Your task to perform on an android device: Set an alarm for 1pm Image 0: 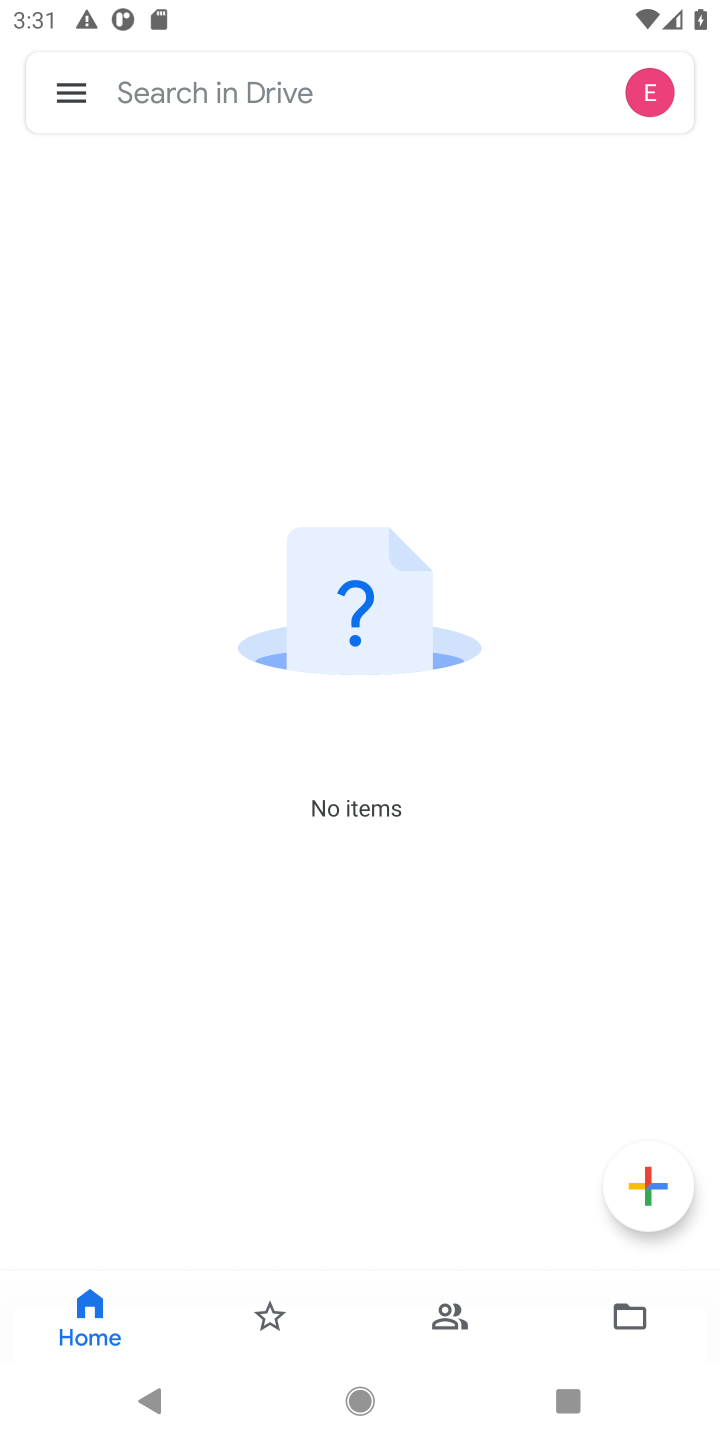
Step 0: press home button
Your task to perform on an android device: Set an alarm for 1pm Image 1: 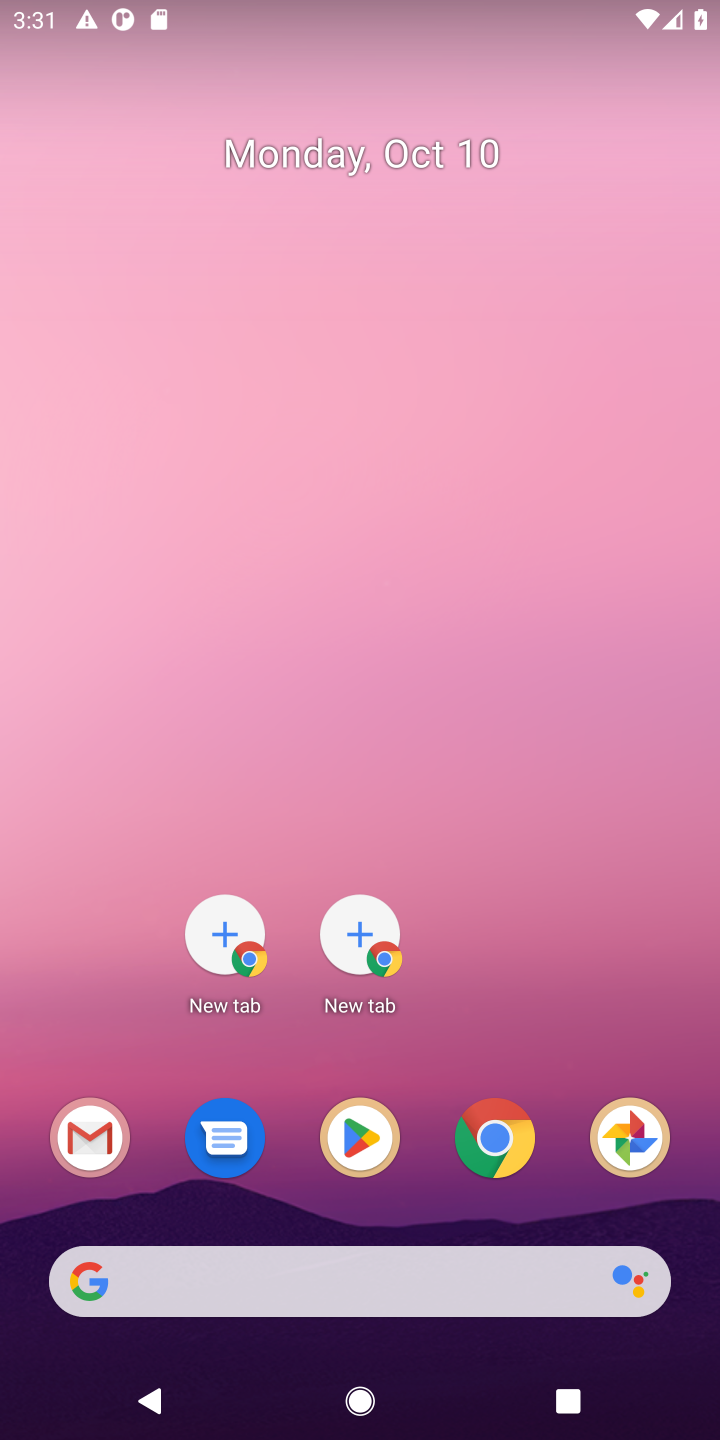
Step 1: drag from (383, 1150) to (439, 331)
Your task to perform on an android device: Set an alarm for 1pm Image 2: 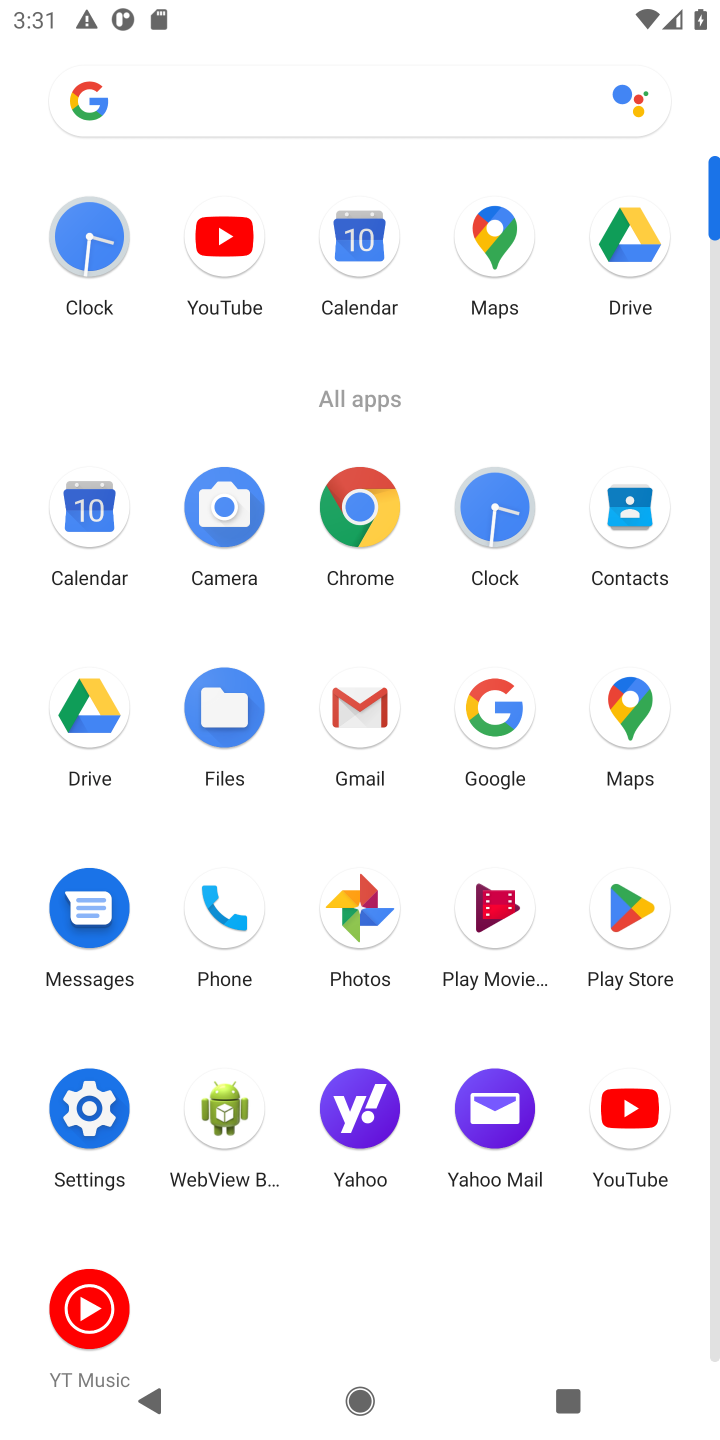
Step 2: click (493, 514)
Your task to perform on an android device: Set an alarm for 1pm Image 3: 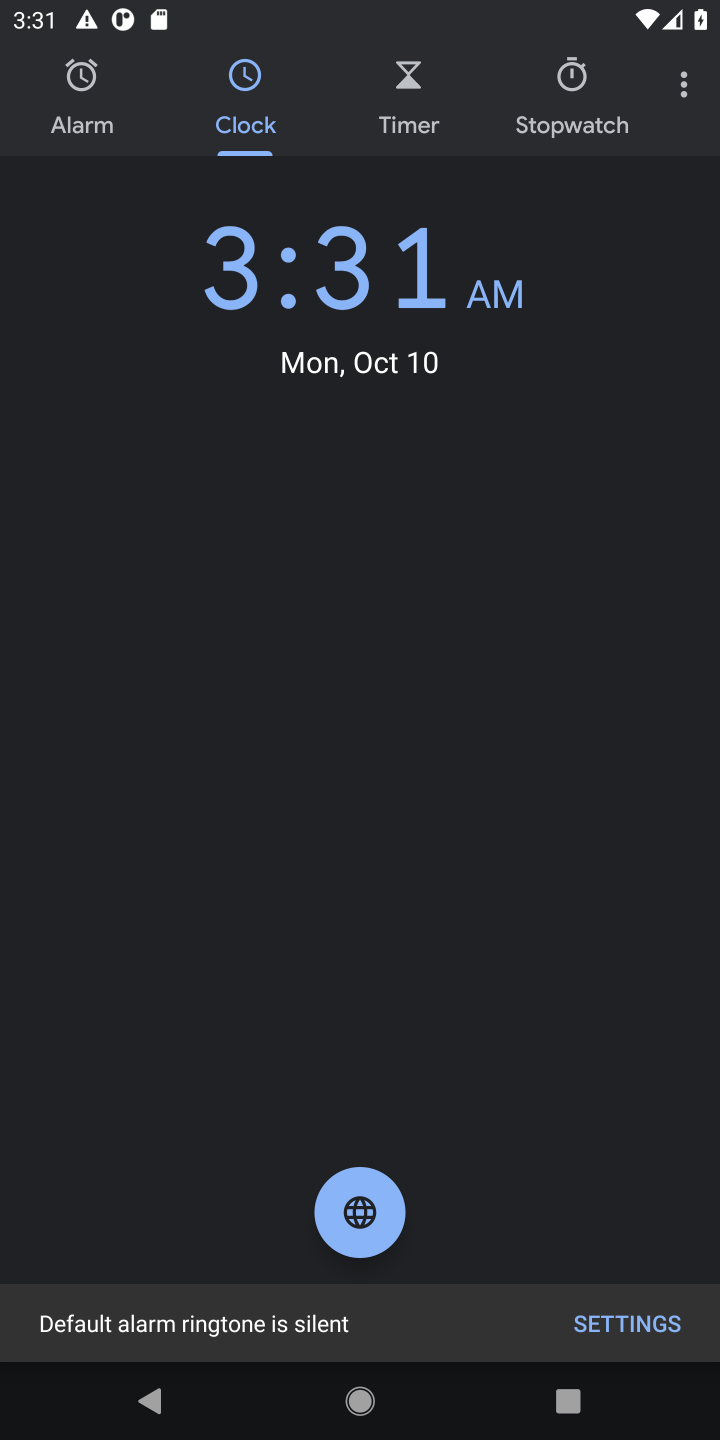
Step 3: click (122, 148)
Your task to perform on an android device: Set an alarm for 1pm Image 4: 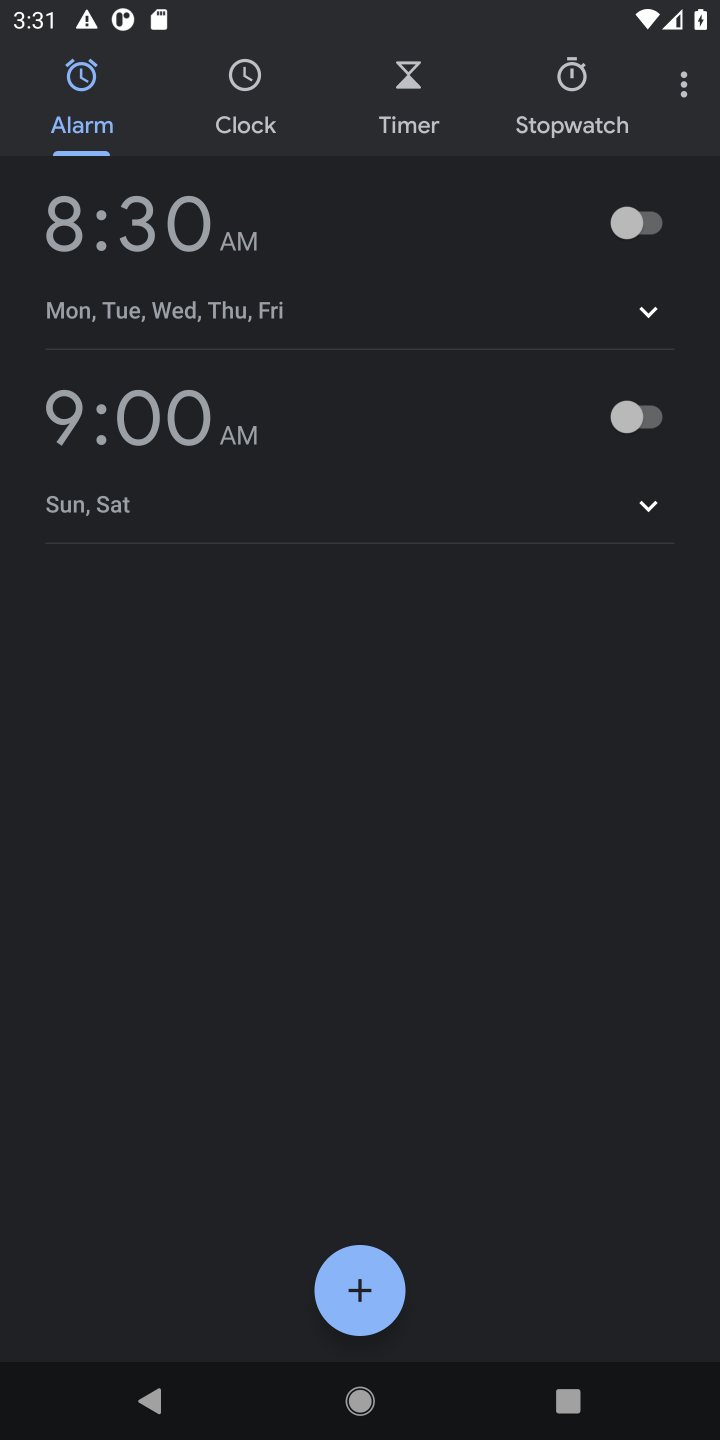
Step 4: click (372, 1300)
Your task to perform on an android device: Set an alarm for 1pm Image 5: 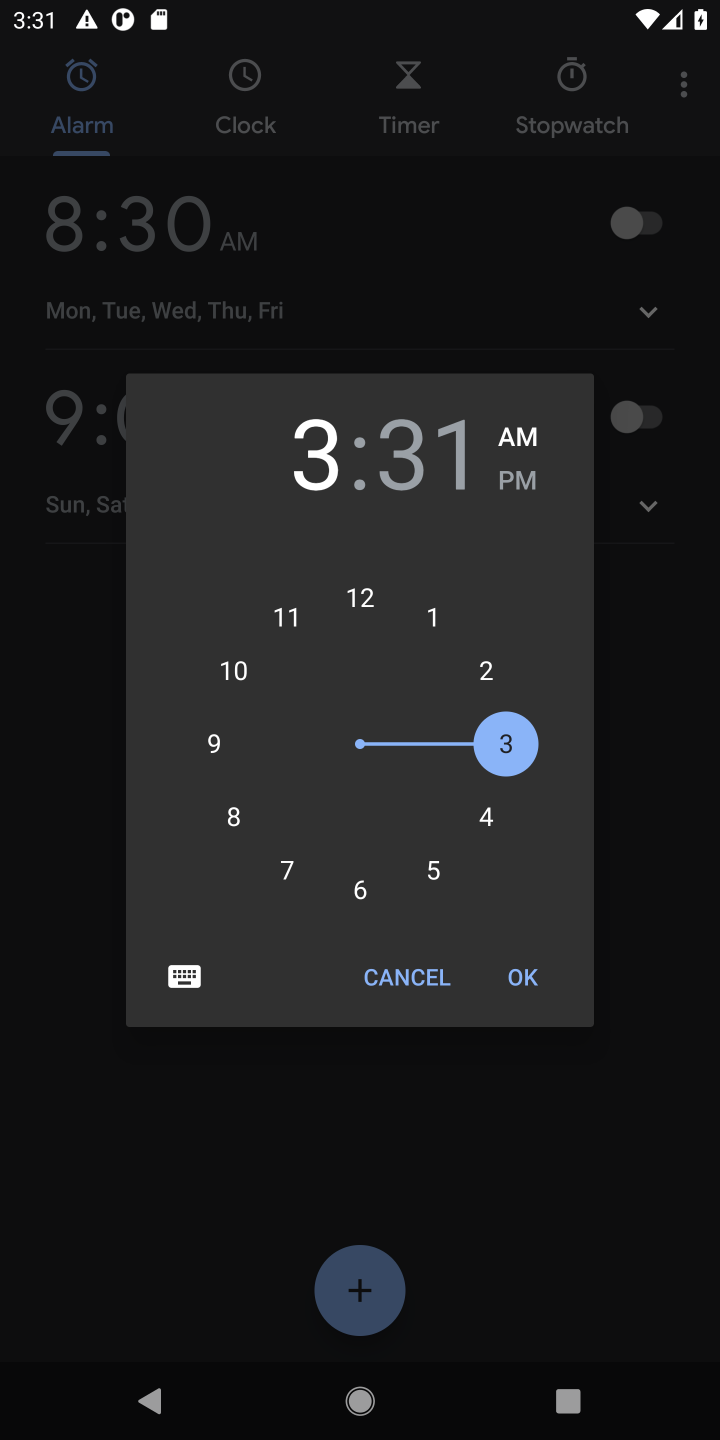
Step 5: click (421, 616)
Your task to perform on an android device: Set an alarm for 1pm Image 6: 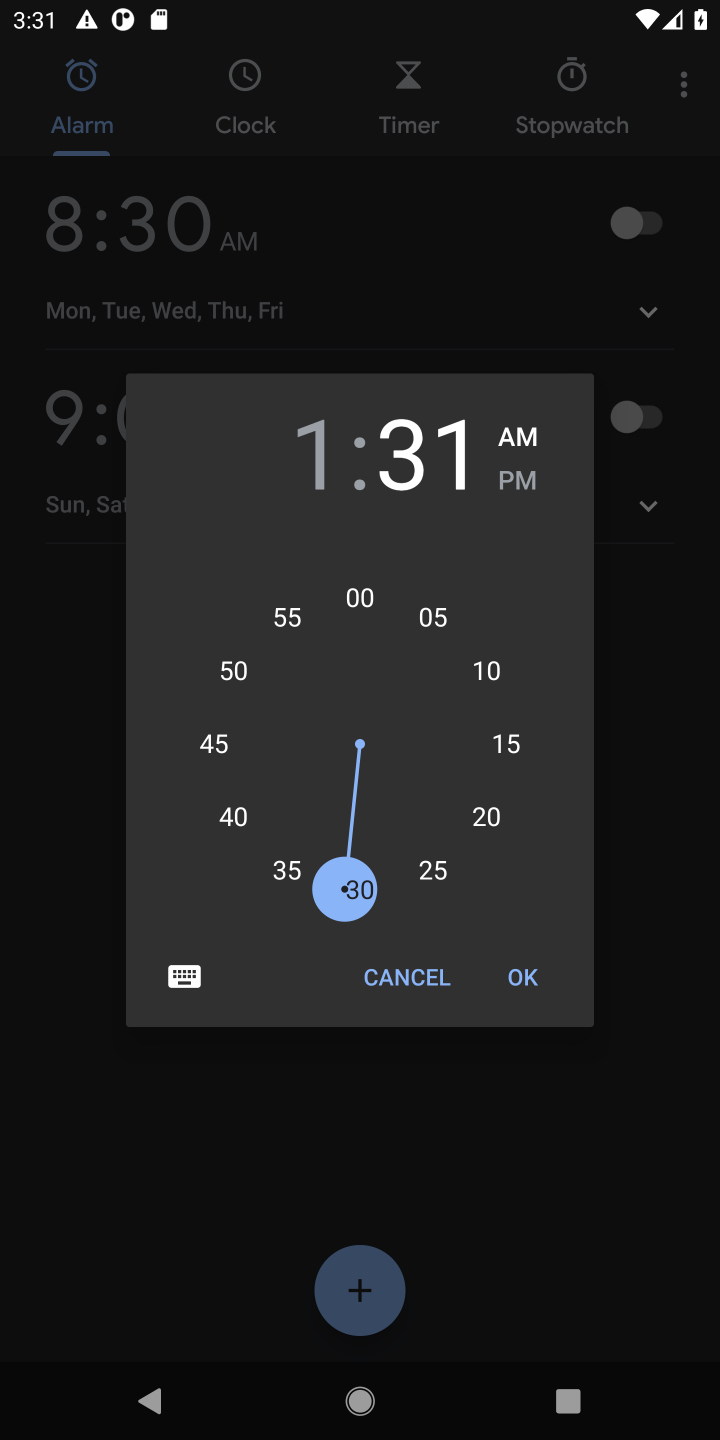
Step 6: click (365, 599)
Your task to perform on an android device: Set an alarm for 1pm Image 7: 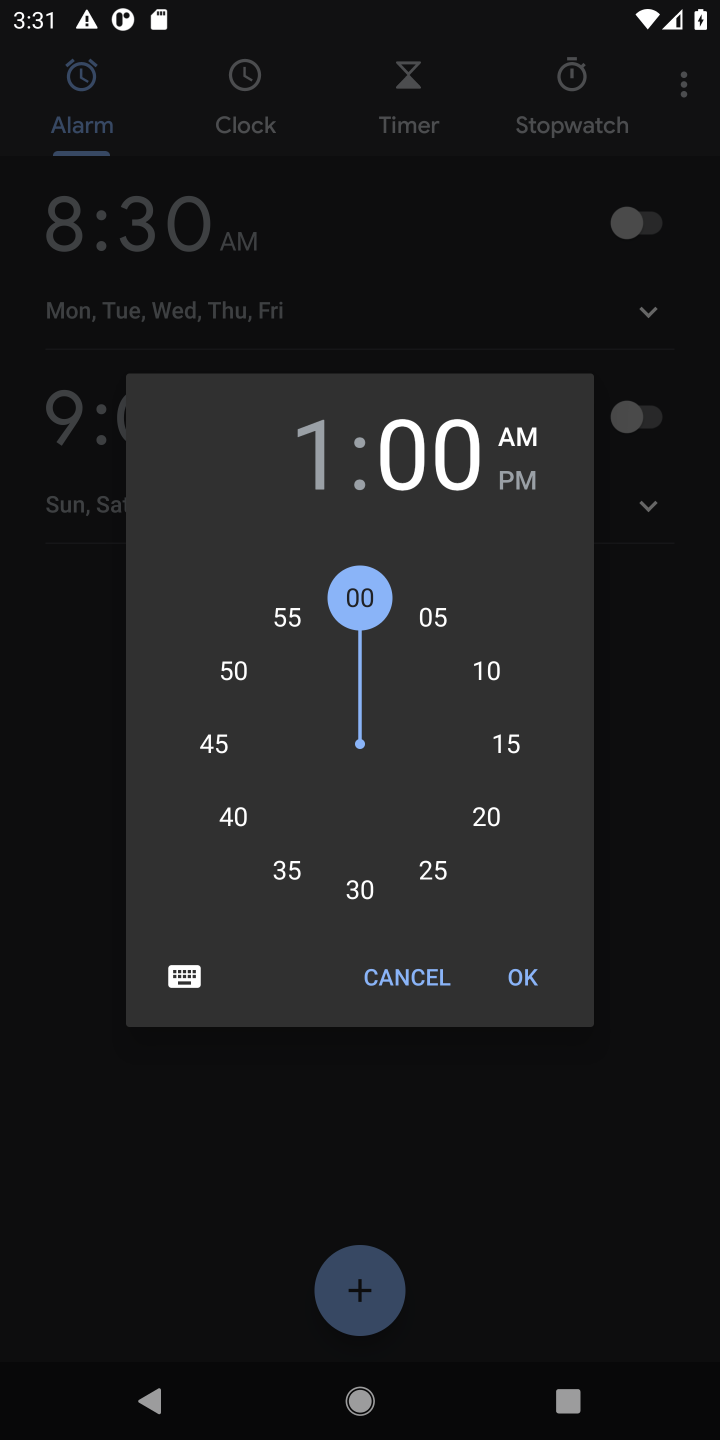
Step 7: click (514, 482)
Your task to perform on an android device: Set an alarm for 1pm Image 8: 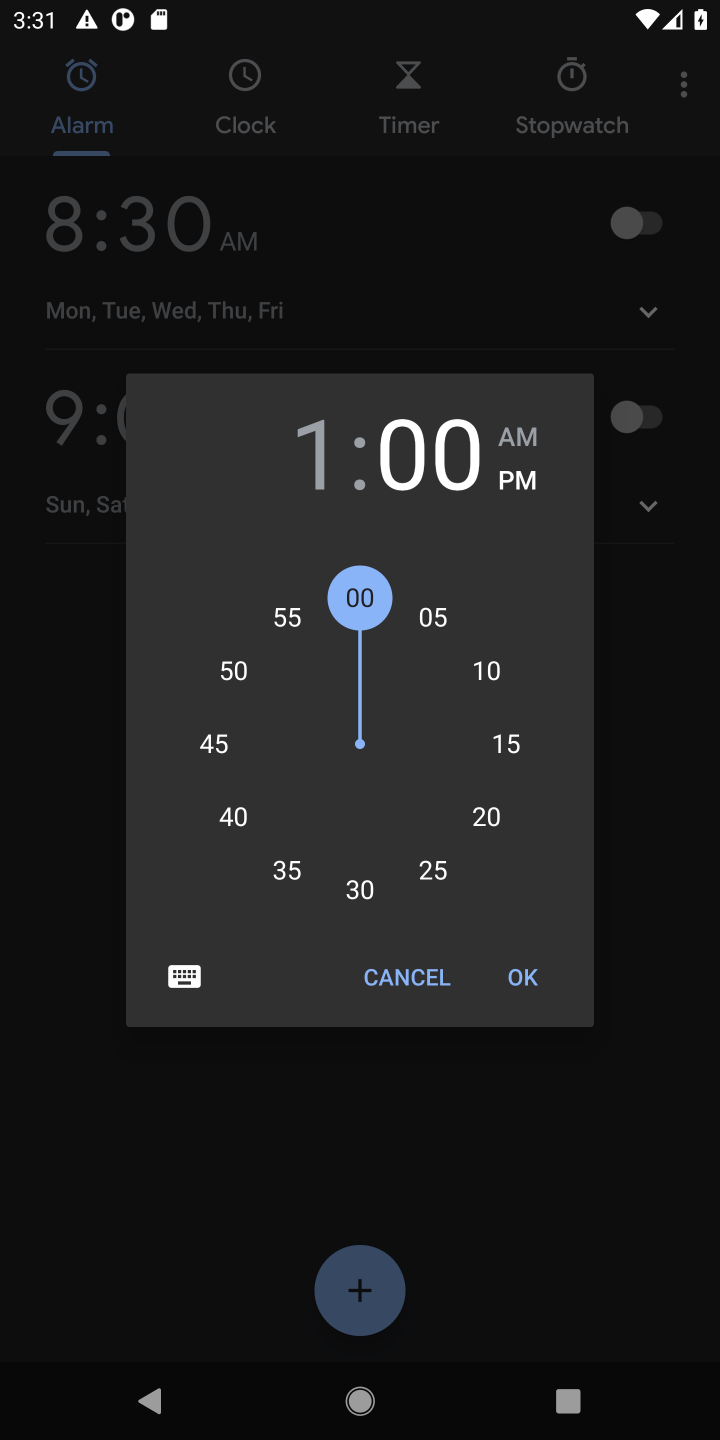
Step 8: click (526, 971)
Your task to perform on an android device: Set an alarm for 1pm Image 9: 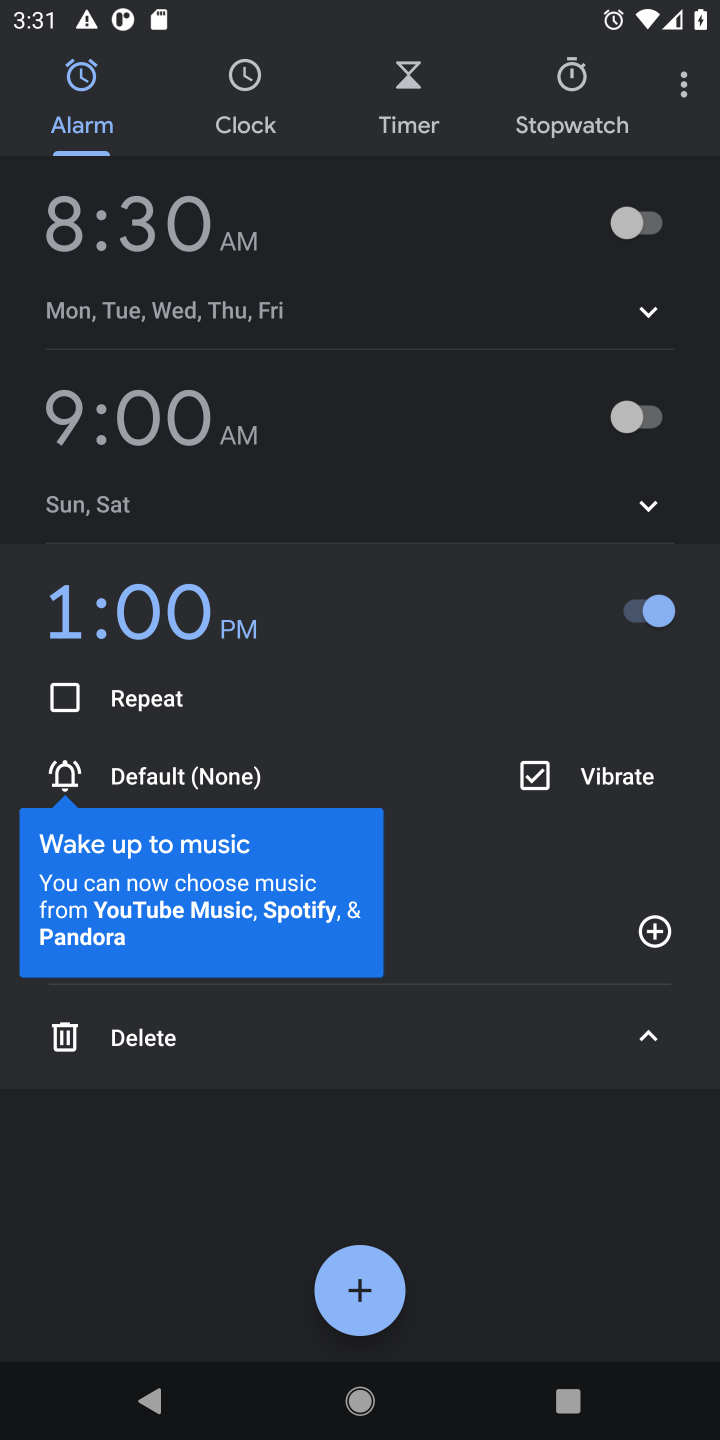
Step 9: click (620, 1032)
Your task to perform on an android device: Set an alarm for 1pm Image 10: 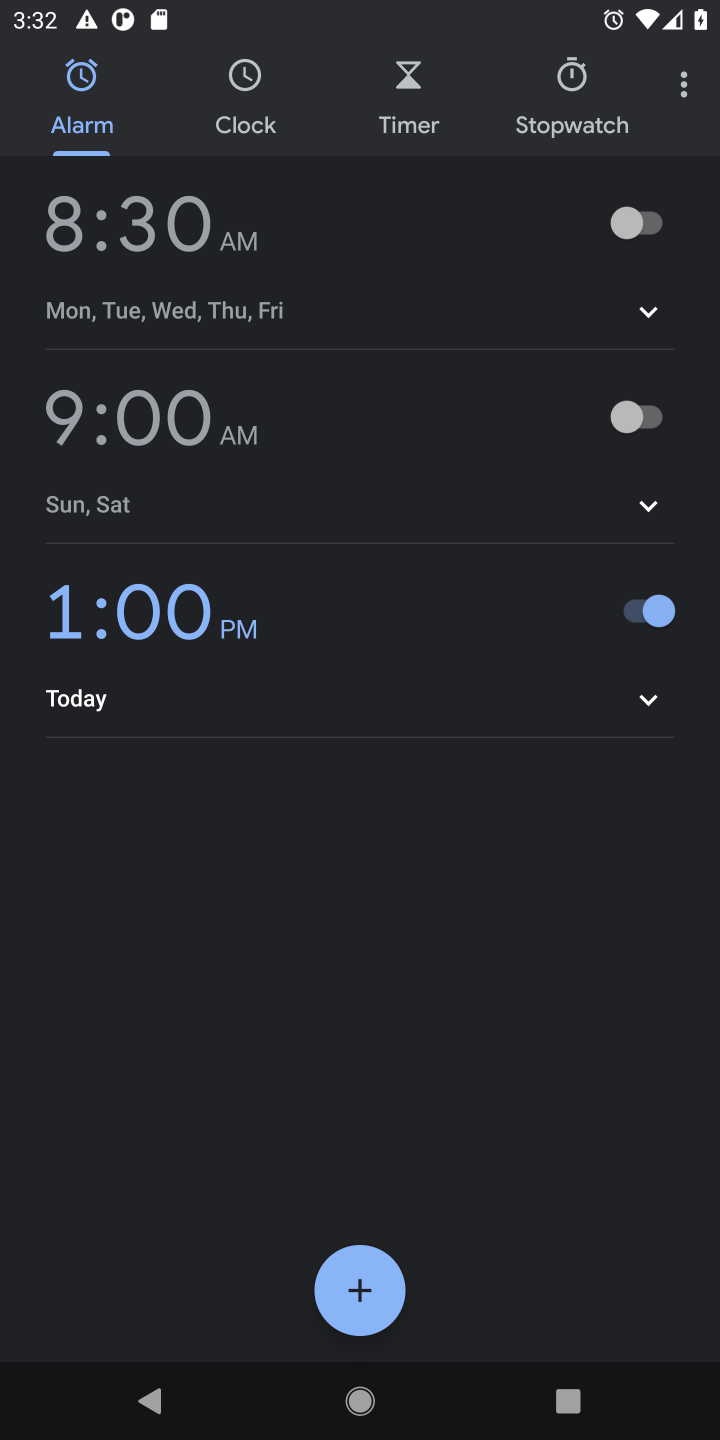
Step 10: task complete